Your task to perform on an android device: turn on airplane mode Image 0: 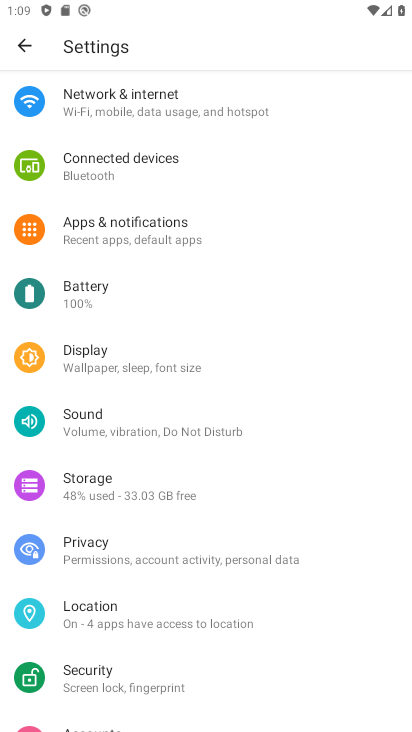
Step 0: press home button
Your task to perform on an android device: turn on airplane mode Image 1: 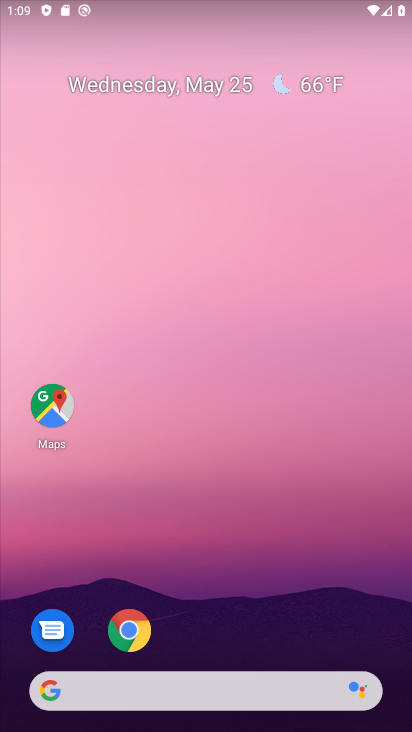
Step 1: drag from (270, 8) to (256, 562)
Your task to perform on an android device: turn on airplane mode Image 2: 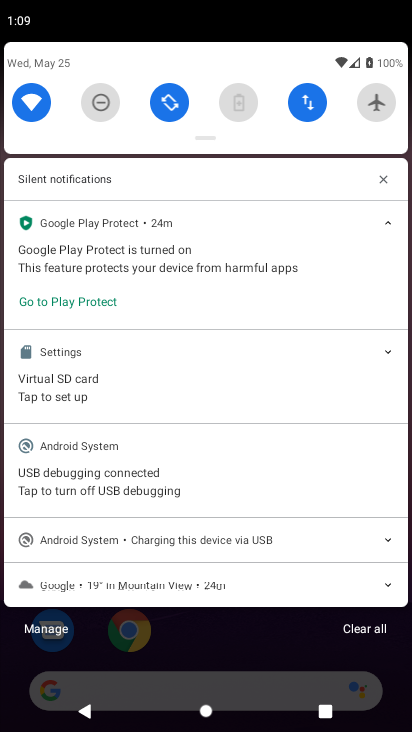
Step 2: click (376, 98)
Your task to perform on an android device: turn on airplane mode Image 3: 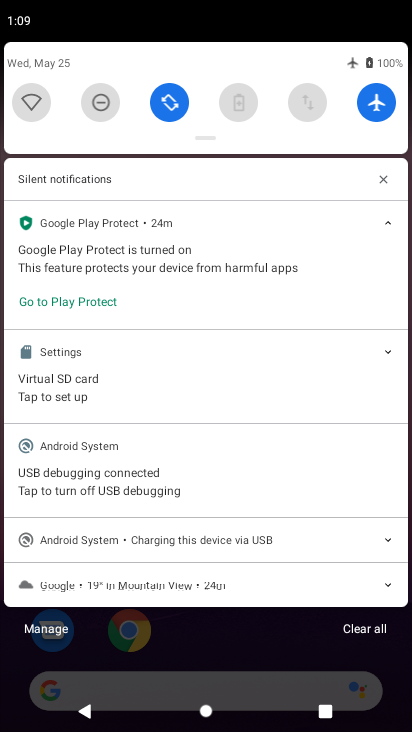
Step 3: task complete